Your task to perform on an android device: turn on javascript in the chrome app Image 0: 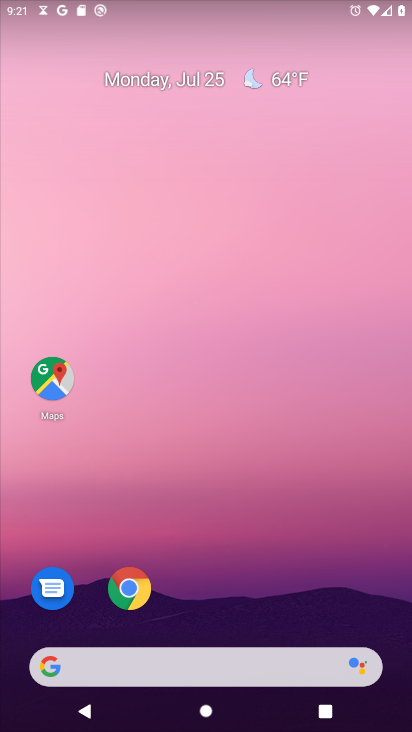
Step 0: click (136, 604)
Your task to perform on an android device: turn on javascript in the chrome app Image 1: 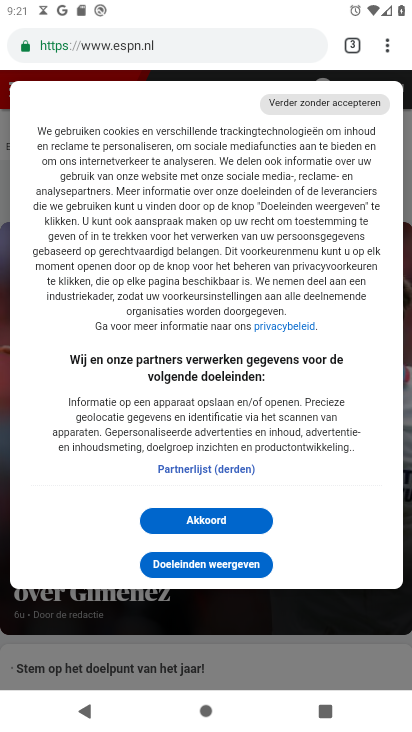
Step 1: drag from (389, 49) to (281, 554)
Your task to perform on an android device: turn on javascript in the chrome app Image 2: 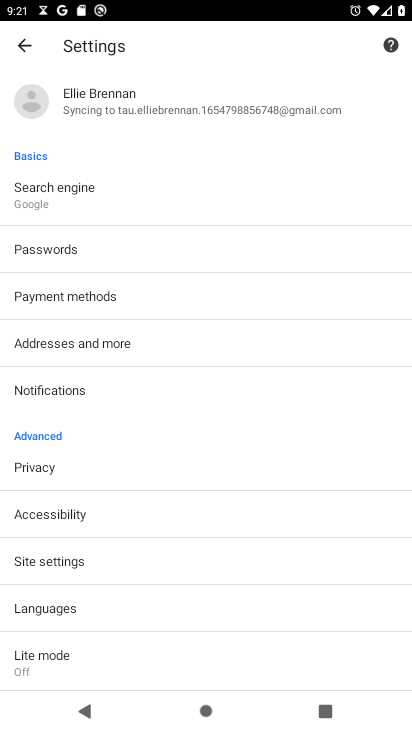
Step 2: click (100, 561)
Your task to perform on an android device: turn on javascript in the chrome app Image 3: 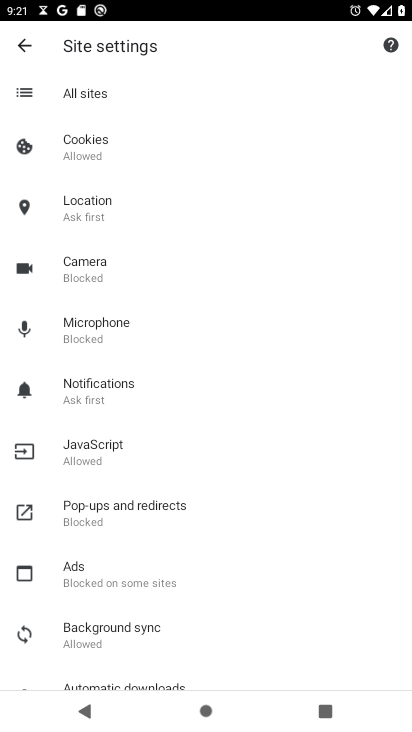
Step 3: click (97, 430)
Your task to perform on an android device: turn on javascript in the chrome app Image 4: 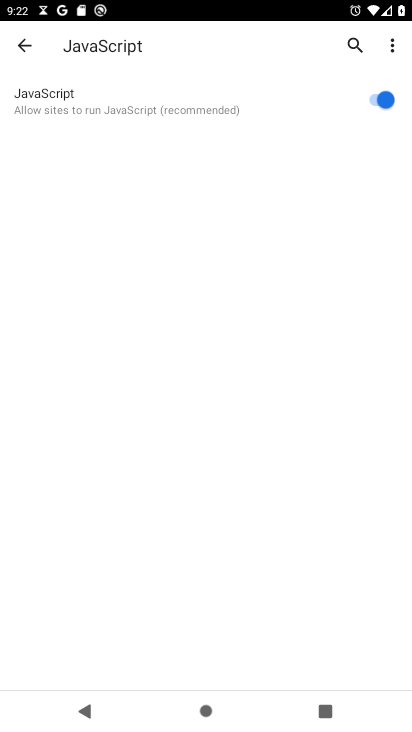
Step 4: task complete